Your task to perform on an android device: turn on airplane mode Image 0: 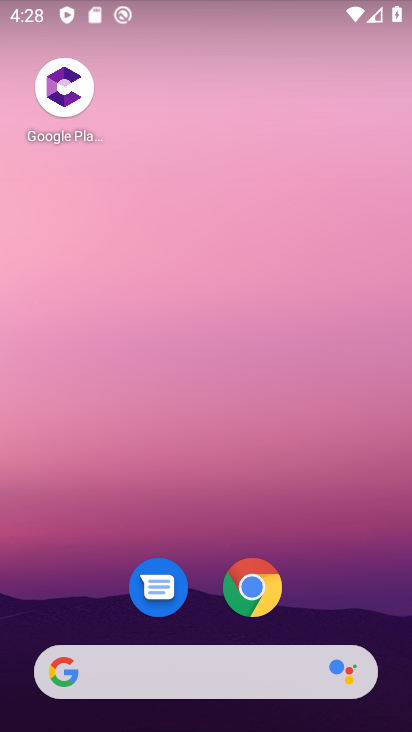
Step 0: drag from (341, 461) to (250, 5)
Your task to perform on an android device: turn on airplane mode Image 1: 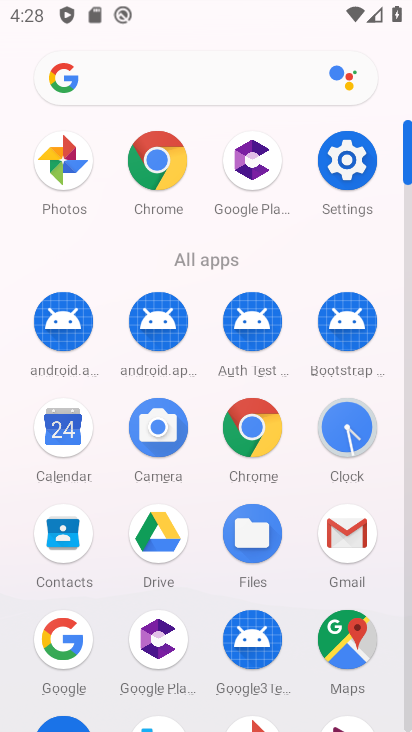
Step 1: click (354, 172)
Your task to perform on an android device: turn on airplane mode Image 2: 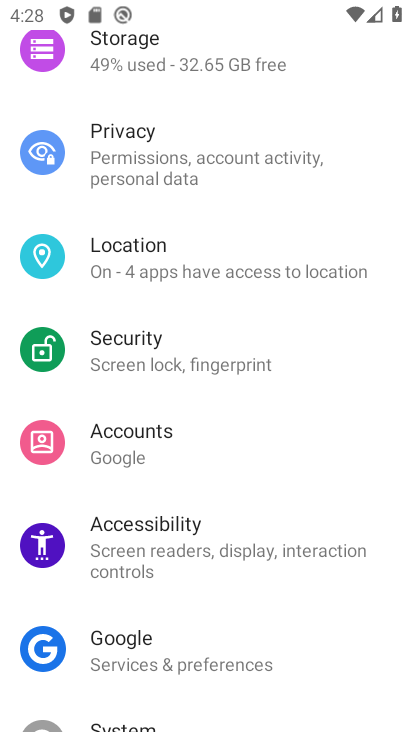
Step 2: drag from (276, 114) to (295, 615)
Your task to perform on an android device: turn on airplane mode Image 3: 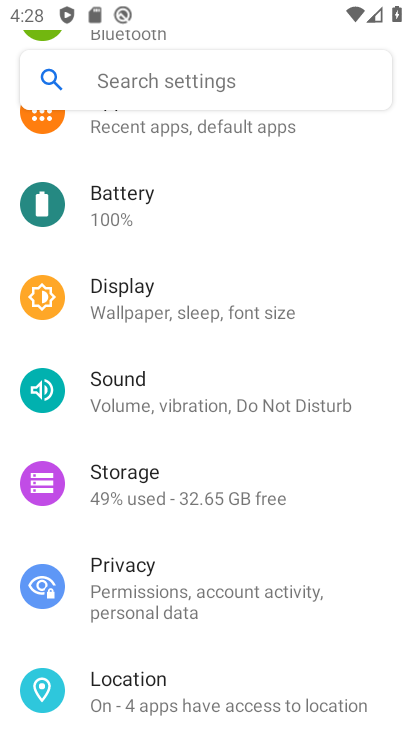
Step 3: drag from (245, 181) to (237, 675)
Your task to perform on an android device: turn on airplane mode Image 4: 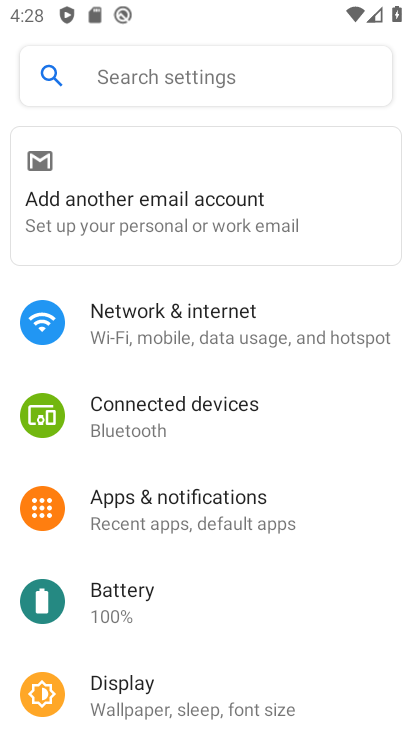
Step 4: click (226, 333)
Your task to perform on an android device: turn on airplane mode Image 5: 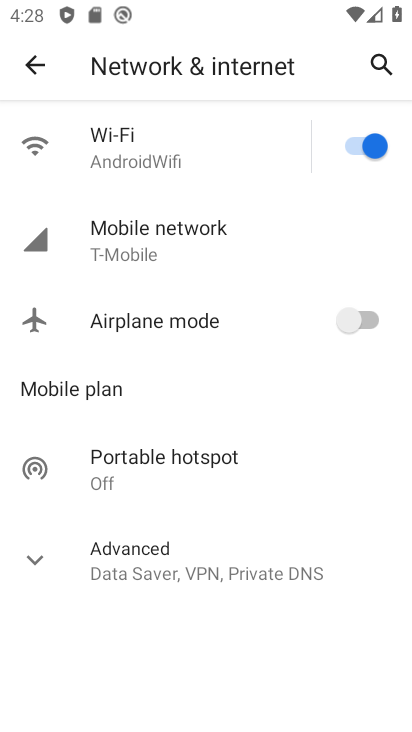
Step 5: click (343, 315)
Your task to perform on an android device: turn on airplane mode Image 6: 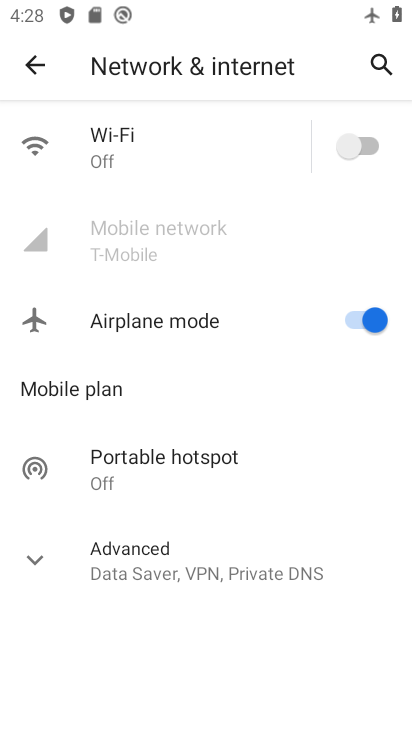
Step 6: task complete